Your task to perform on an android device: turn on location history Image 0: 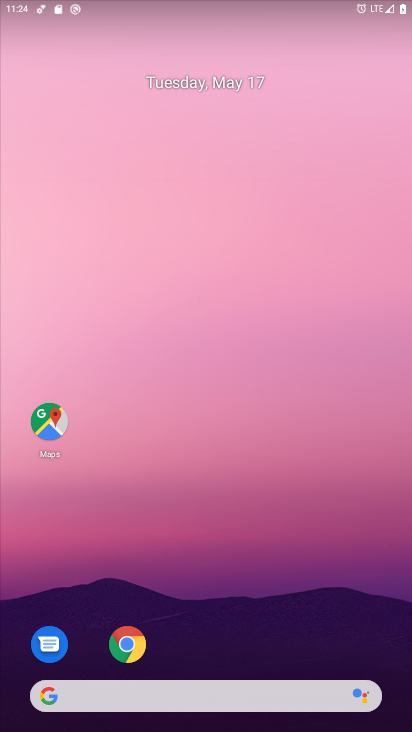
Step 0: drag from (206, 652) to (237, 331)
Your task to perform on an android device: turn on location history Image 1: 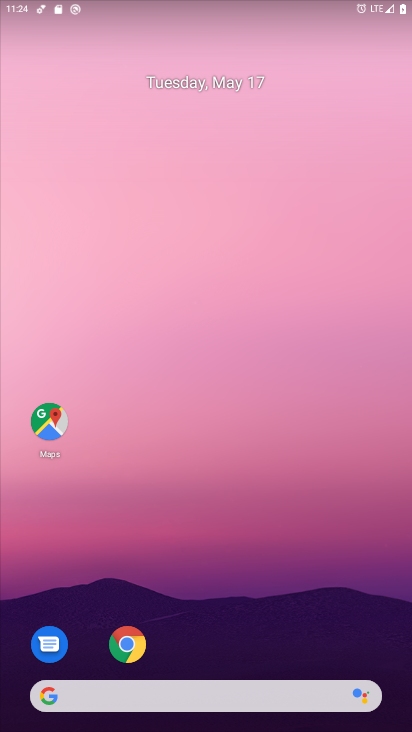
Step 1: drag from (211, 653) to (260, 263)
Your task to perform on an android device: turn on location history Image 2: 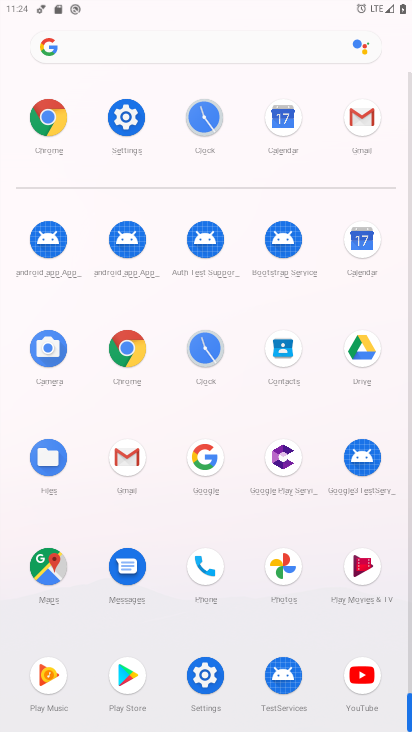
Step 2: click (126, 112)
Your task to perform on an android device: turn on location history Image 3: 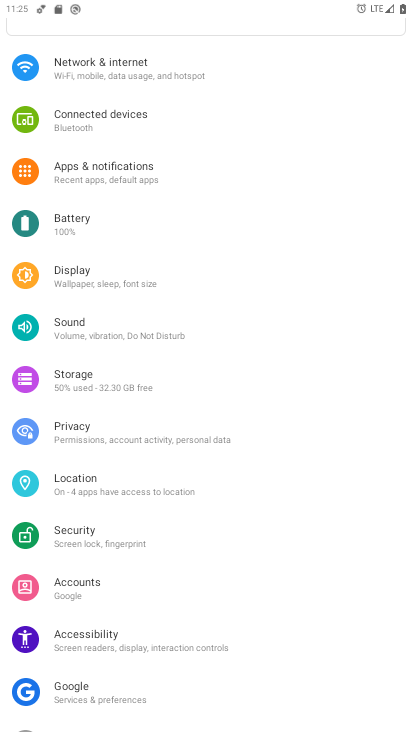
Step 3: click (105, 484)
Your task to perform on an android device: turn on location history Image 4: 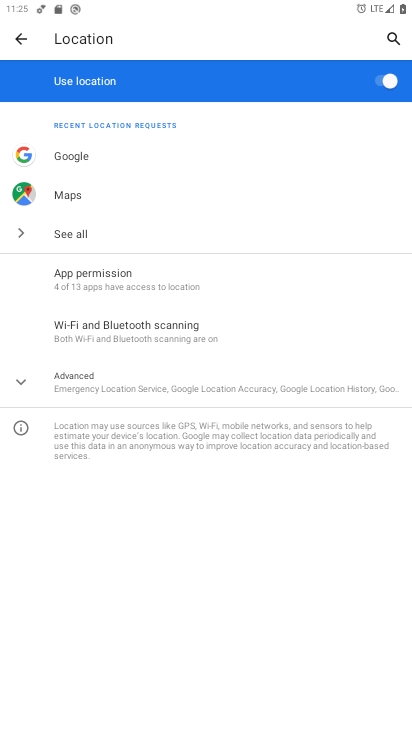
Step 4: click (98, 378)
Your task to perform on an android device: turn on location history Image 5: 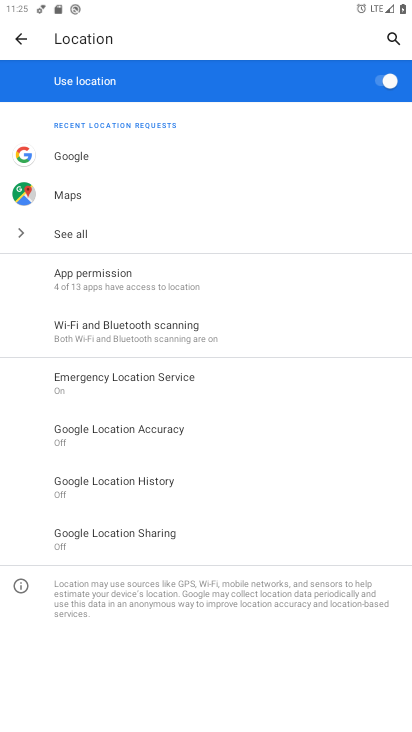
Step 5: click (157, 490)
Your task to perform on an android device: turn on location history Image 6: 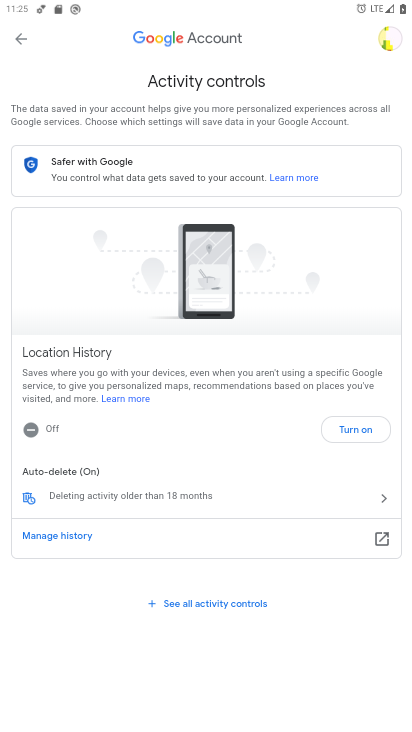
Step 6: task complete